Your task to perform on an android device: open device folders in google photos Image 0: 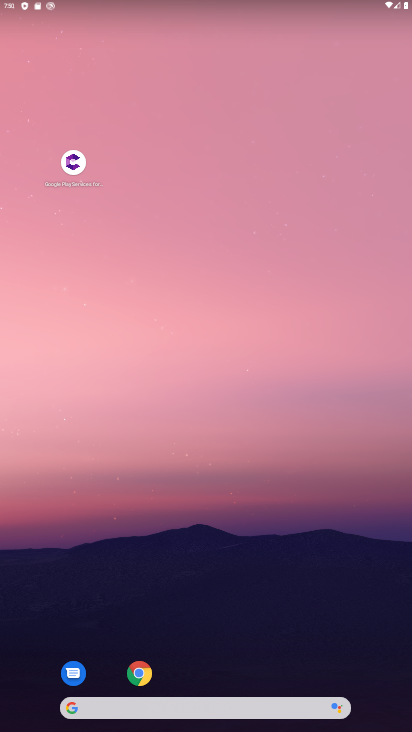
Step 0: drag from (171, 627) to (171, 46)
Your task to perform on an android device: open device folders in google photos Image 1: 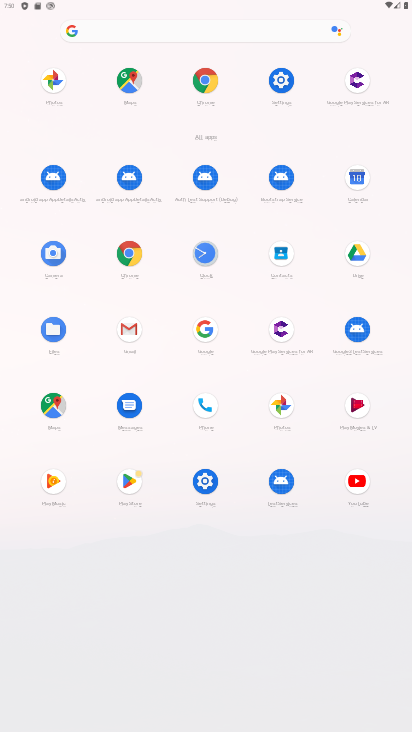
Step 1: click (282, 397)
Your task to perform on an android device: open device folders in google photos Image 2: 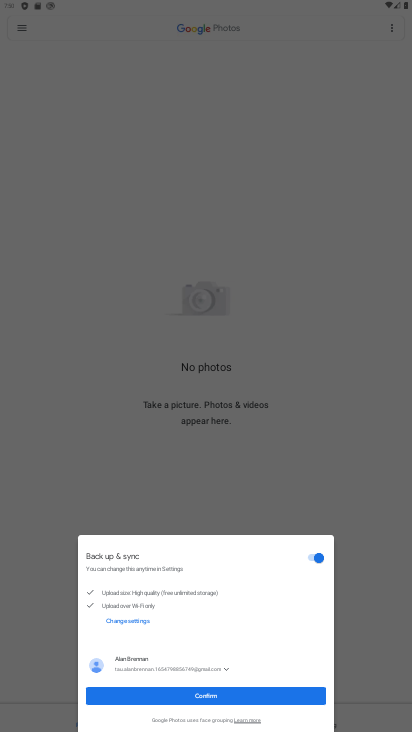
Step 2: click (213, 695)
Your task to perform on an android device: open device folders in google photos Image 3: 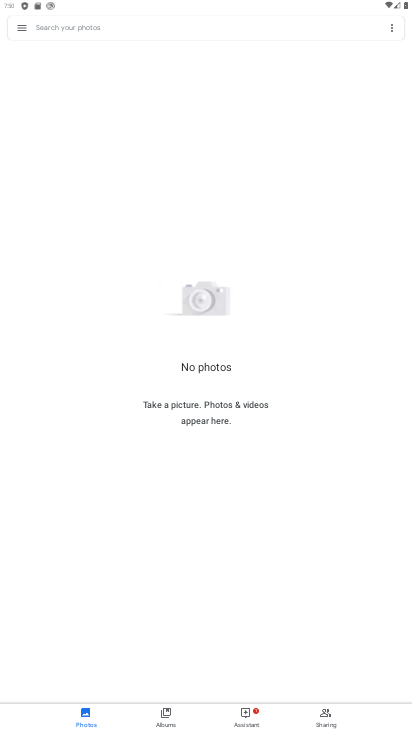
Step 3: click (20, 32)
Your task to perform on an android device: open device folders in google photos Image 4: 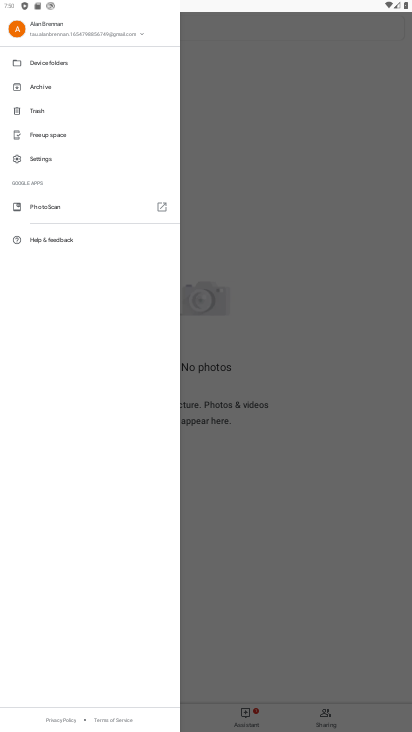
Step 4: click (44, 63)
Your task to perform on an android device: open device folders in google photos Image 5: 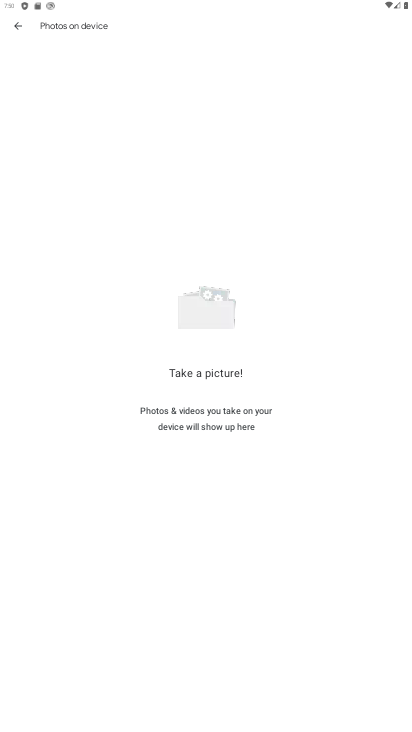
Step 5: task complete